Your task to perform on an android device: Open the Play Movies app and select the watchlist tab. Image 0: 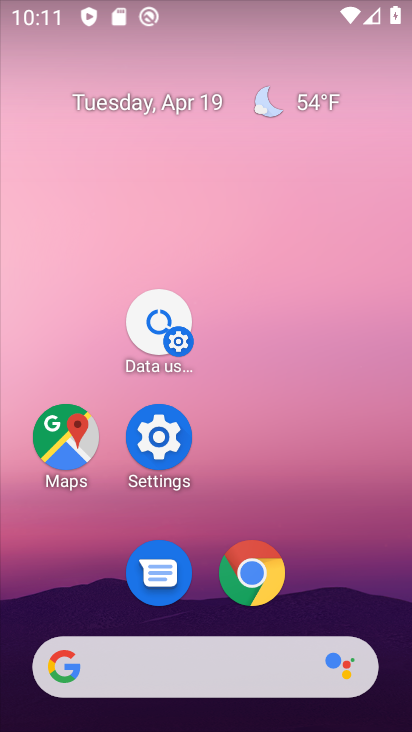
Step 0: drag from (376, 567) to (391, 11)
Your task to perform on an android device: Open the Play Movies app and select the watchlist tab. Image 1: 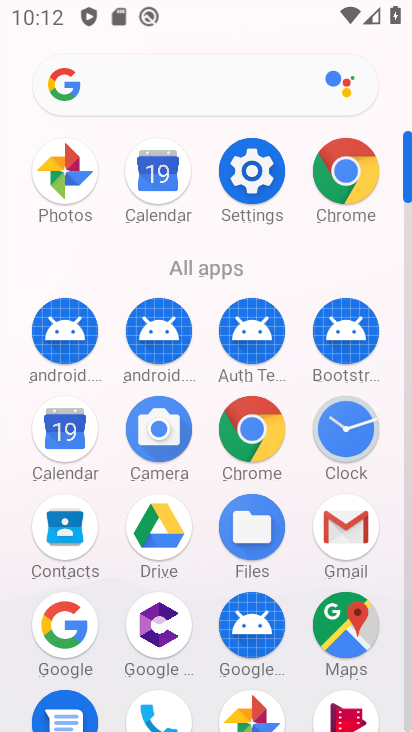
Step 1: click (408, 617)
Your task to perform on an android device: Open the Play Movies app and select the watchlist tab. Image 2: 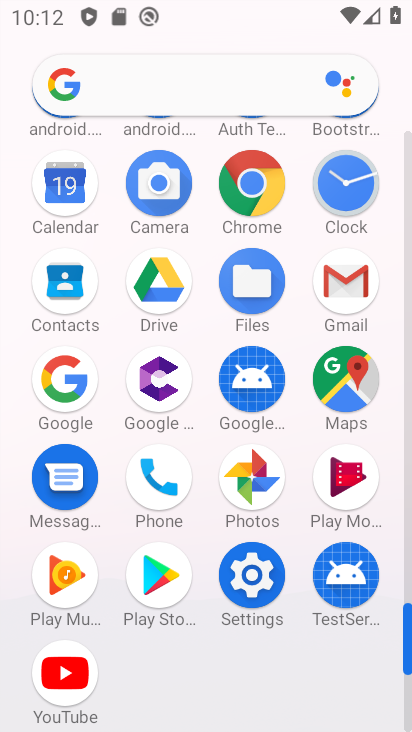
Step 2: click (344, 473)
Your task to perform on an android device: Open the Play Movies app and select the watchlist tab. Image 3: 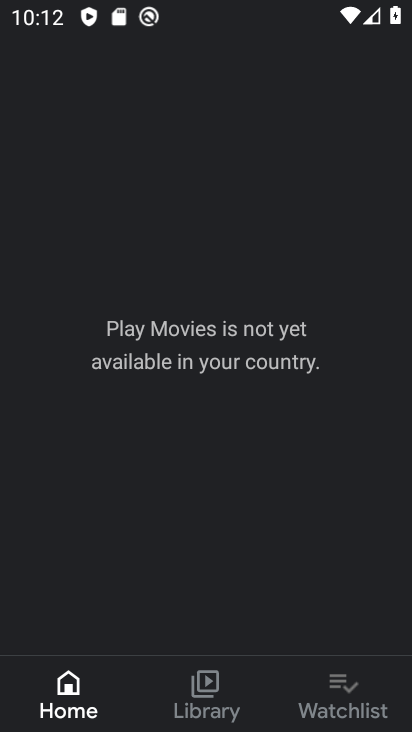
Step 3: click (332, 703)
Your task to perform on an android device: Open the Play Movies app and select the watchlist tab. Image 4: 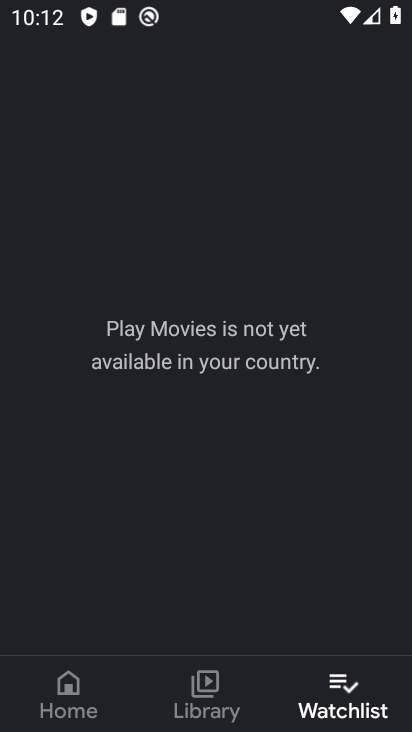
Step 4: task complete